Your task to perform on an android device: turn on javascript in the chrome app Image 0: 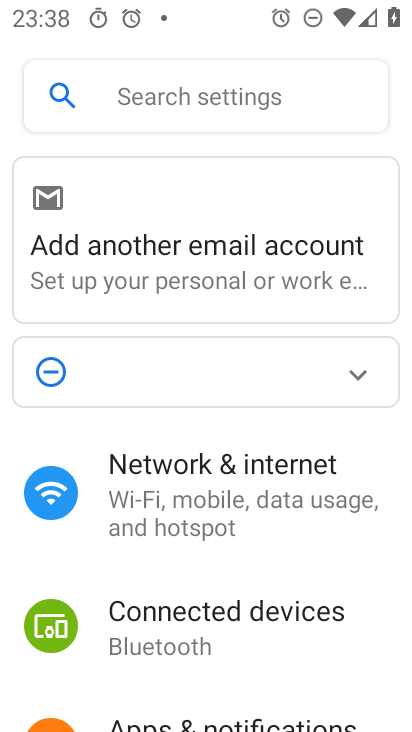
Step 0: press home button
Your task to perform on an android device: turn on javascript in the chrome app Image 1: 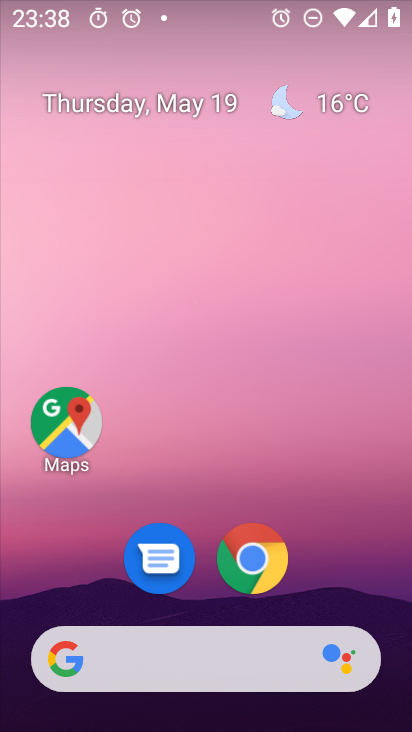
Step 1: click (258, 564)
Your task to perform on an android device: turn on javascript in the chrome app Image 2: 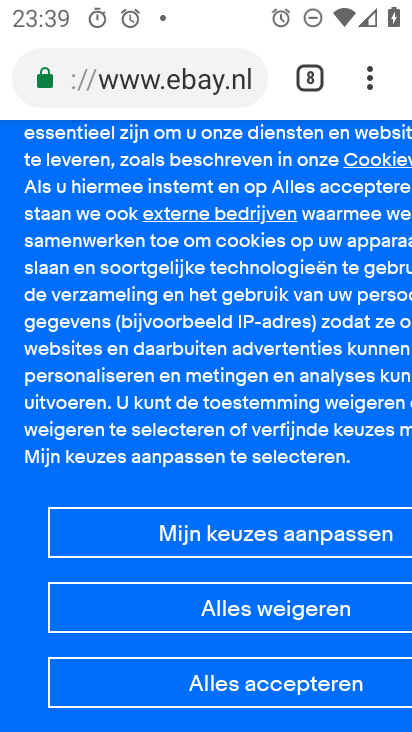
Step 2: click (370, 81)
Your task to perform on an android device: turn on javascript in the chrome app Image 3: 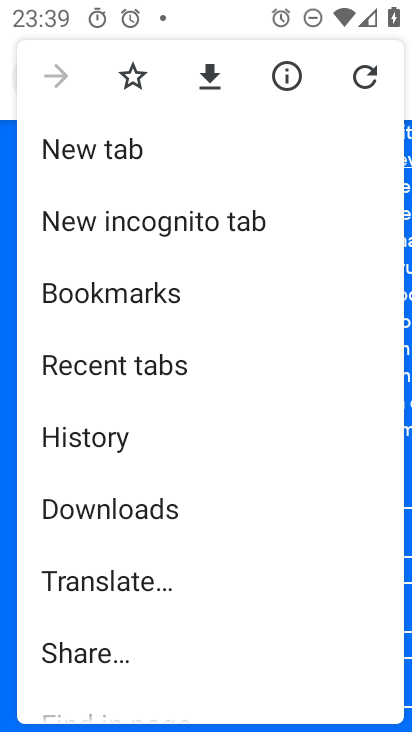
Step 3: drag from (110, 610) to (113, 236)
Your task to perform on an android device: turn on javascript in the chrome app Image 4: 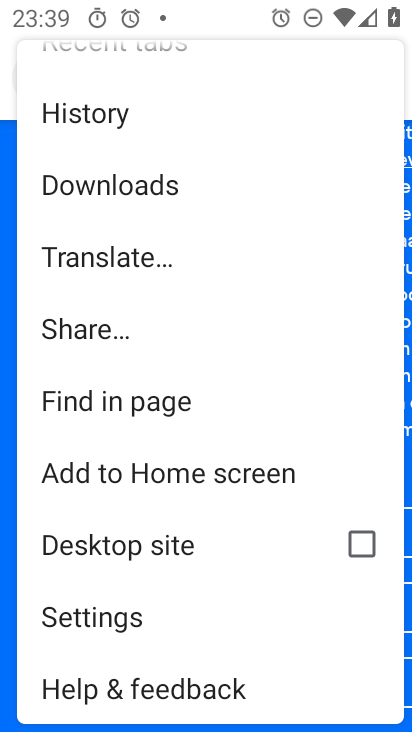
Step 4: click (114, 615)
Your task to perform on an android device: turn on javascript in the chrome app Image 5: 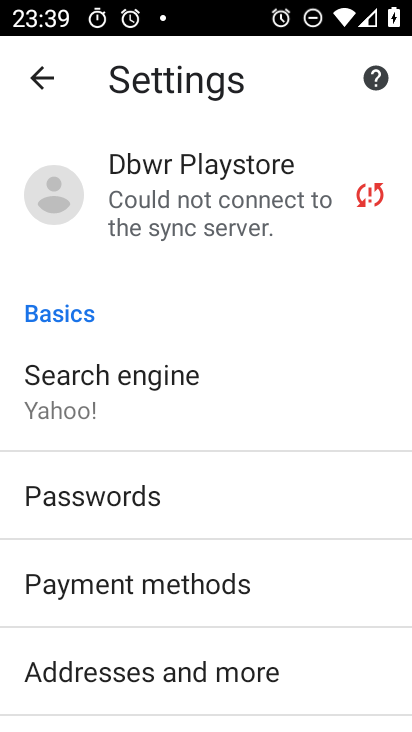
Step 5: drag from (136, 649) to (122, 247)
Your task to perform on an android device: turn on javascript in the chrome app Image 6: 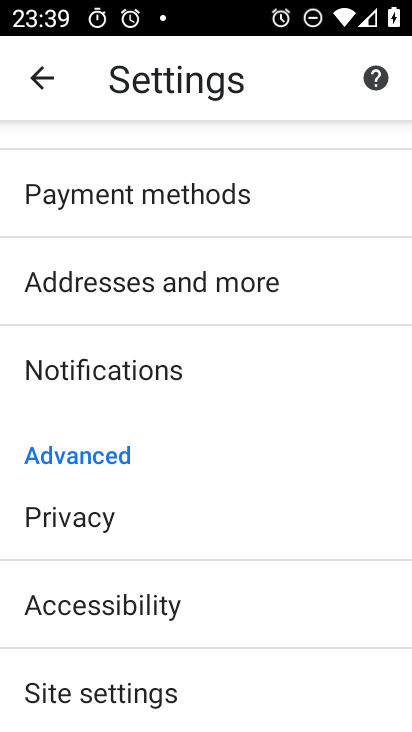
Step 6: drag from (105, 635) to (109, 290)
Your task to perform on an android device: turn on javascript in the chrome app Image 7: 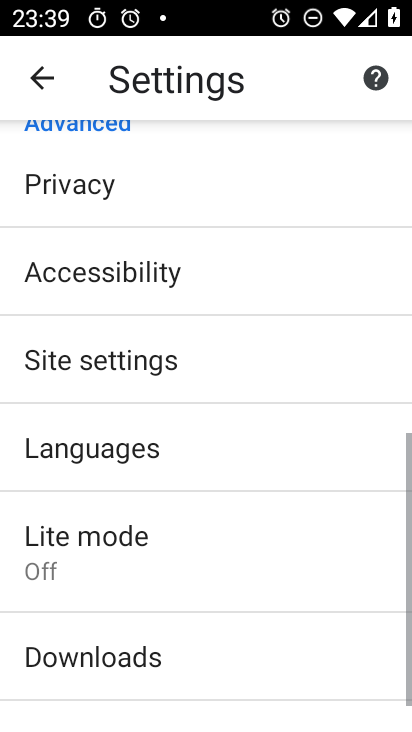
Step 7: click (133, 362)
Your task to perform on an android device: turn on javascript in the chrome app Image 8: 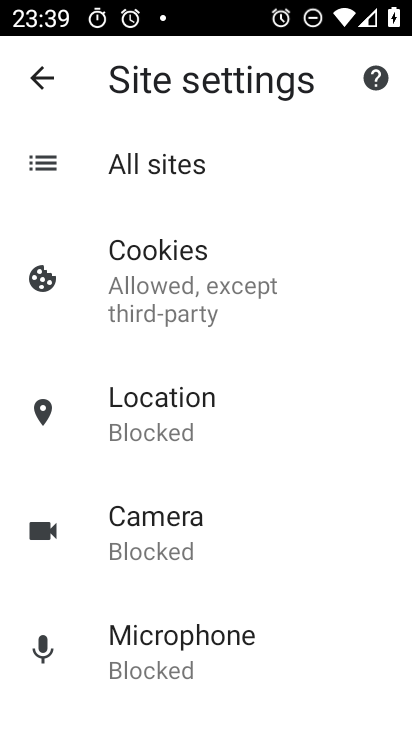
Step 8: drag from (192, 660) to (187, 287)
Your task to perform on an android device: turn on javascript in the chrome app Image 9: 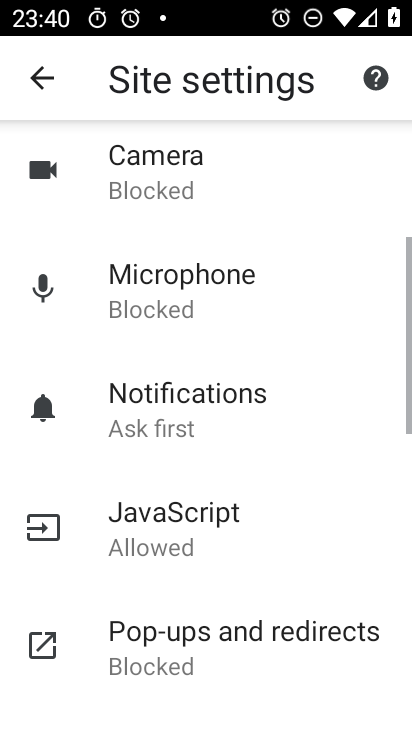
Step 9: click (170, 518)
Your task to perform on an android device: turn on javascript in the chrome app Image 10: 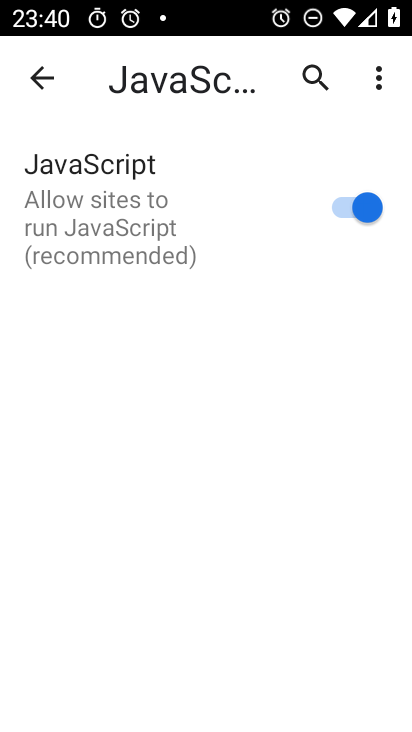
Step 10: task complete